Your task to perform on an android device: Open notification settings Image 0: 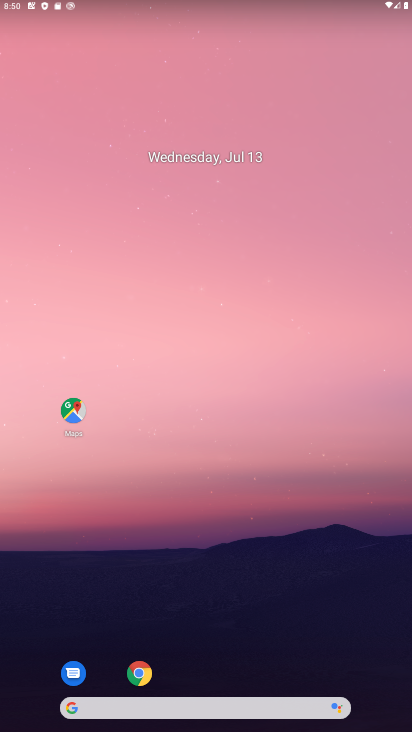
Step 0: drag from (310, 520) to (282, 72)
Your task to perform on an android device: Open notification settings Image 1: 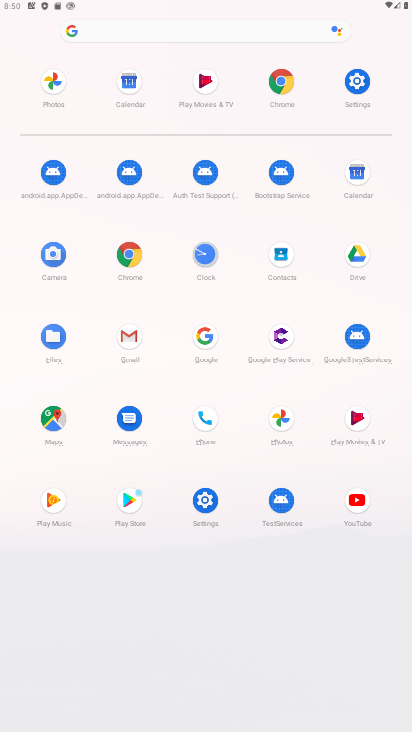
Step 1: click (360, 79)
Your task to perform on an android device: Open notification settings Image 2: 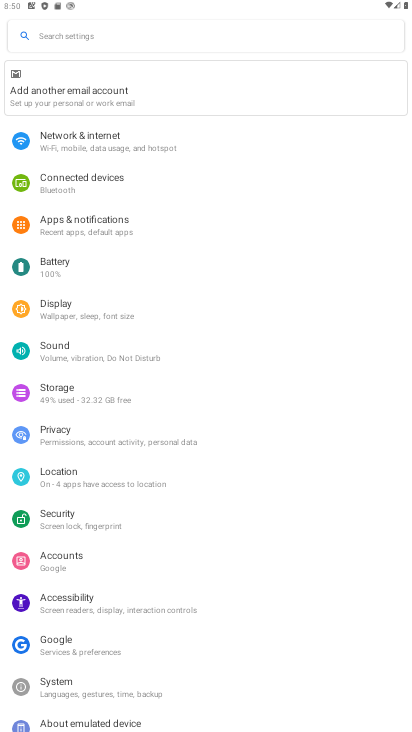
Step 2: click (111, 234)
Your task to perform on an android device: Open notification settings Image 3: 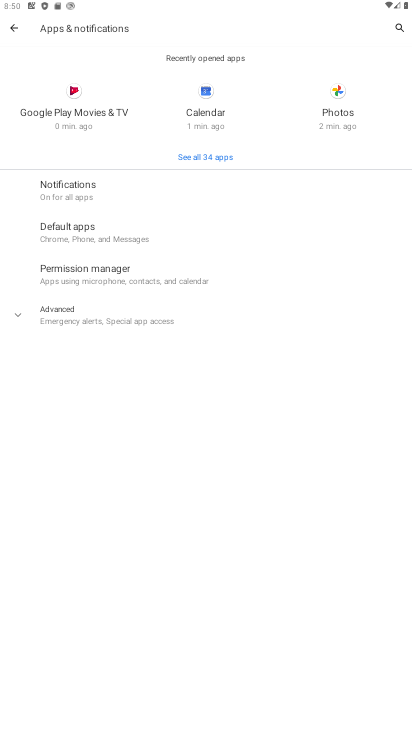
Step 3: click (85, 192)
Your task to perform on an android device: Open notification settings Image 4: 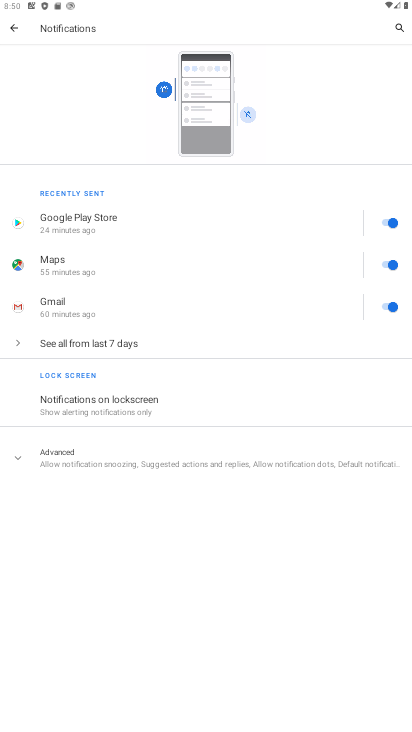
Step 4: task complete